Your task to perform on an android device: Open calendar and show me the first week of next month Image 0: 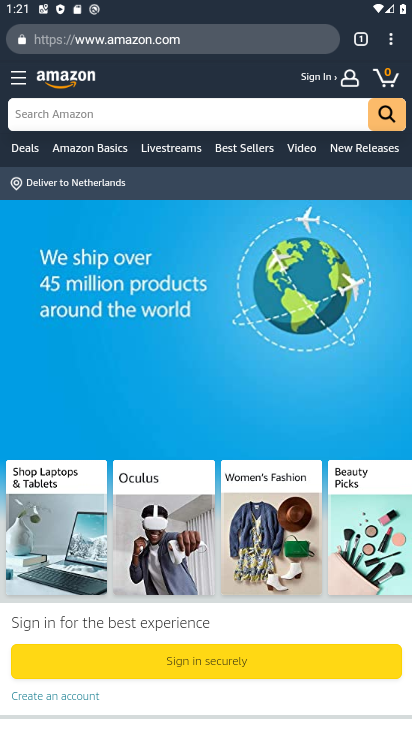
Step 0: press home button
Your task to perform on an android device: Open calendar and show me the first week of next month Image 1: 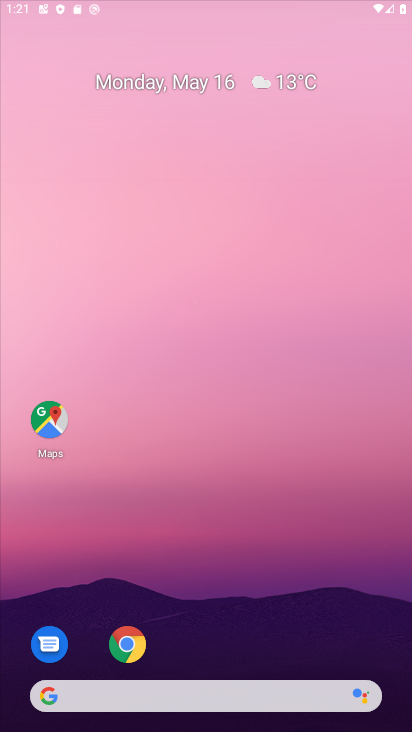
Step 1: drag from (279, 534) to (287, 102)
Your task to perform on an android device: Open calendar and show me the first week of next month Image 2: 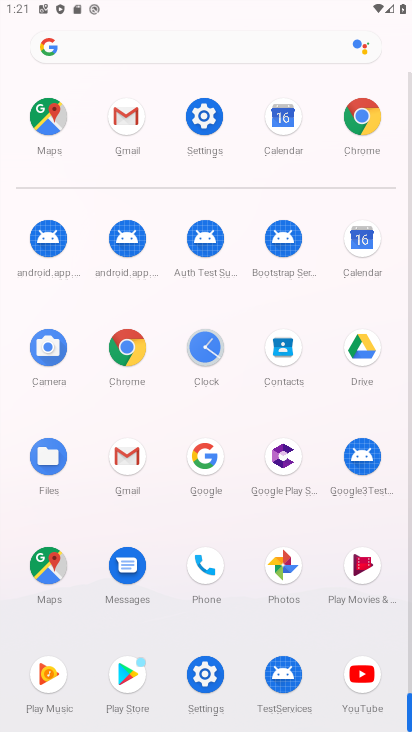
Step 2: click (354, 261)
Your task to perform on an android device: Open calendar and show me the first week of next month Image 3: 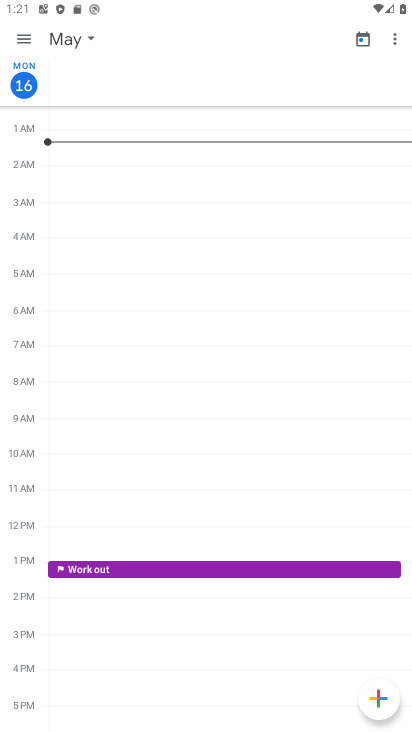
Step 3: click (71, 39)
Your task to perform on an android device: Open calendar and show me the first week of next month Image 4: 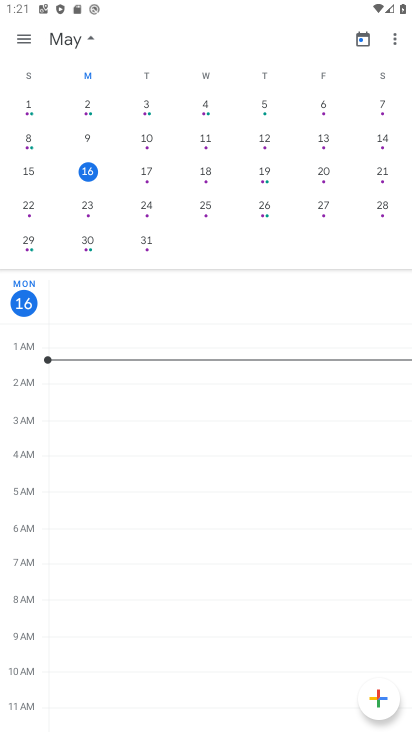
Step 4: drag from (403, 181) to (21, 216)
Your task to perform on an android device: Open calendar and show me the first week of next month Image 5: 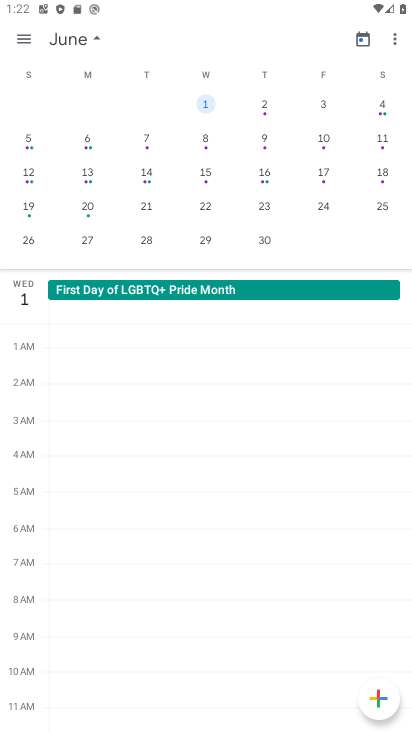
Step 5: click (31, 151)
Your task to perform on an android device: Open calendar and show me the first week of next month Image 6: 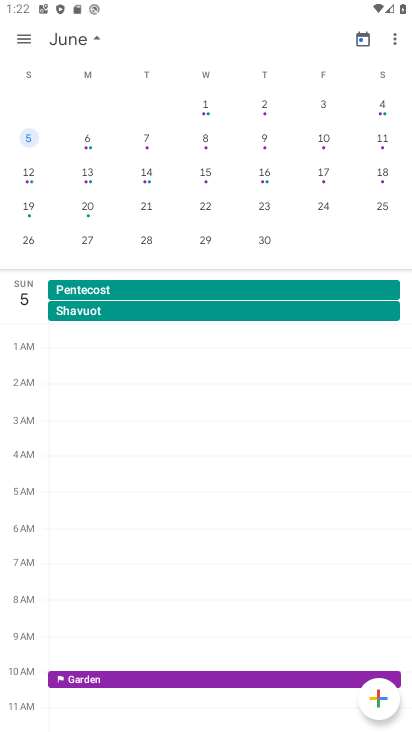
Step 6: task complete